Your task to perform on an android device: allow notifications from all sites in the chrome app Image 0: 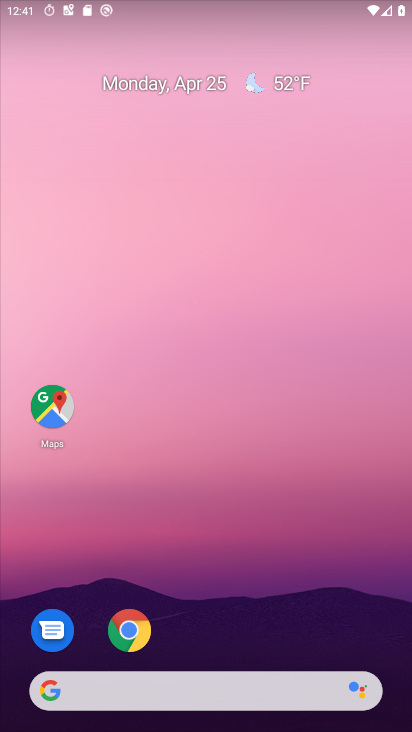
Step 0: drag from (172, 609) to (219, 172)
Your task to perform on an android device: allow notifications from all sites in the chrome app Image 1: 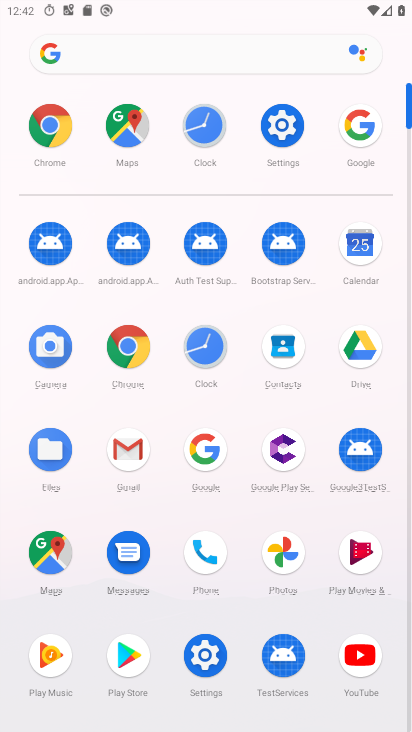
Step 1: click (125, 343)
Your task to perform on an android device: allow notifications from all sites in the chrome app Image 2: 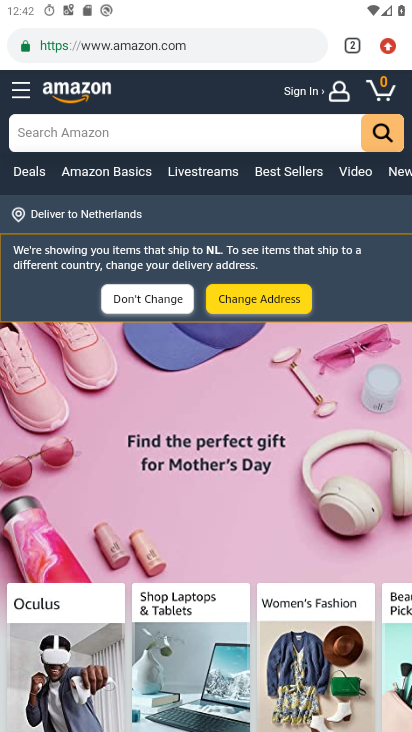
Step 2: drag from (193, 589) to (249, 264)
Your task to perform on an android device: allow notifications from all sites in the chrome app Image 3: 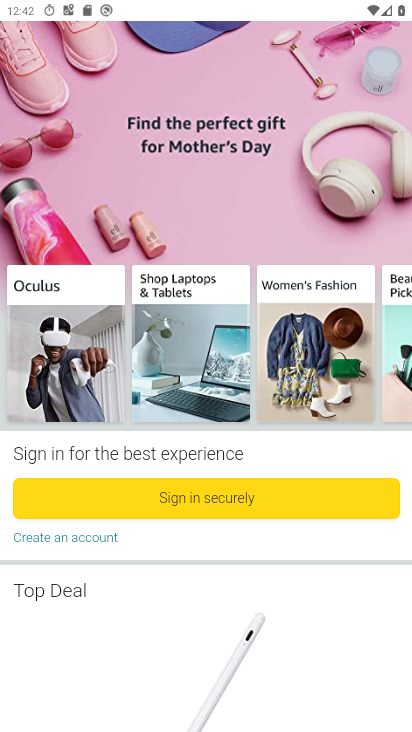
Step 3: drag from (240, 255) to (232, 598)
Your task to perform on an android device: allow notifications from all sites in the chrome app Image 4: 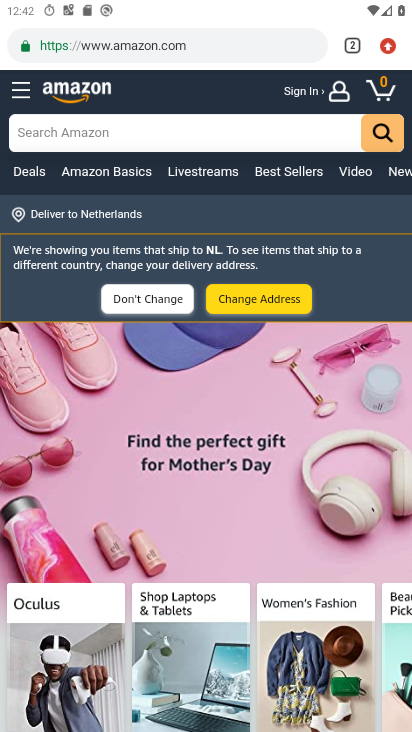
Step 4: drag from (208, 551) to (267, 26)
Your task to perform on an android device: allow notifications from all sites in the chrome app Image 5: 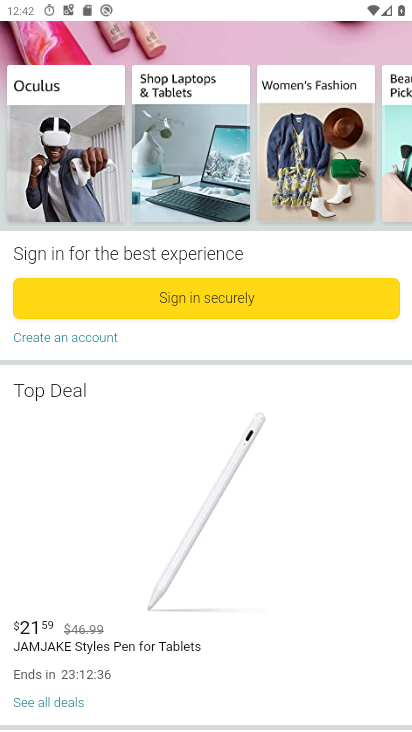
Step 5: drag from (181, 522) to (254, 8)
Your task to perform on an android device: allow notifications from all sites in the chrome app Image 6: 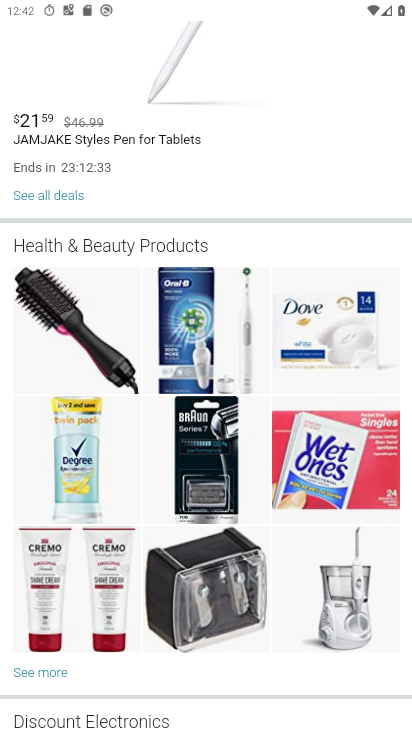
Step 6: drag from (216, 105) to (321, 595)
Your task to perform on an android device: allow notifications from all sites in the chrome app Image 7: 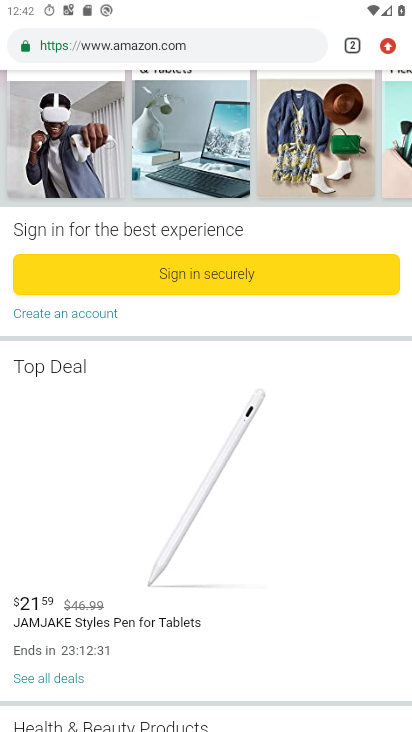
Step 7: drag from (389, 48) to (276, 594)
Your task to perform on an android device: allow notifications from all sites in the chrome app Image 8: 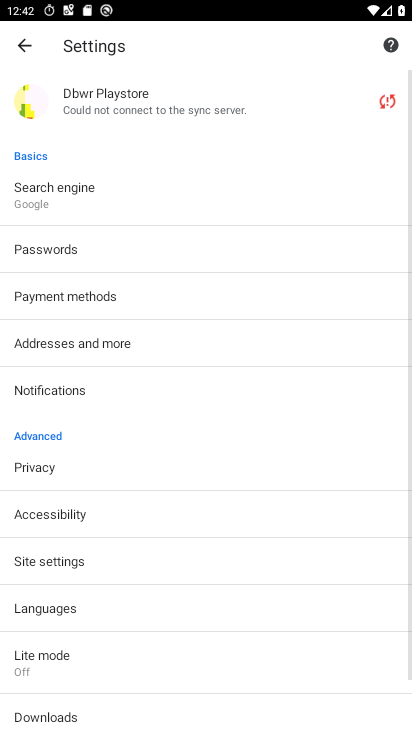
Step 8: drag from (228, 523) to (294, 94)
Your task to perform on an android device: allow notifications from all sites in the chrome app Image 9: 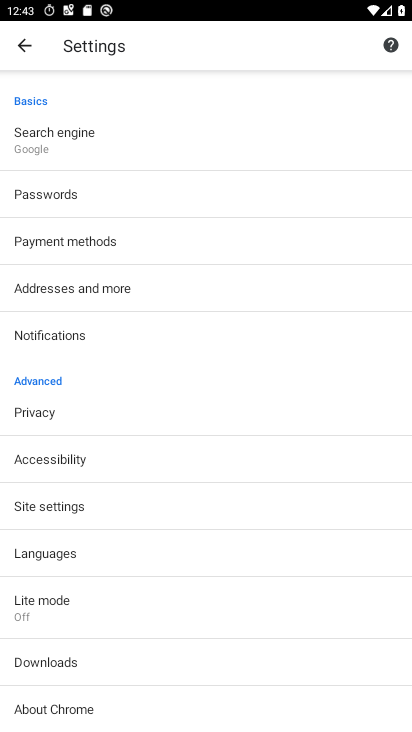
Step 9: click (83, 509)
Your task to perform on an android device: allow notifications from all sites in the chrome app Image 10: 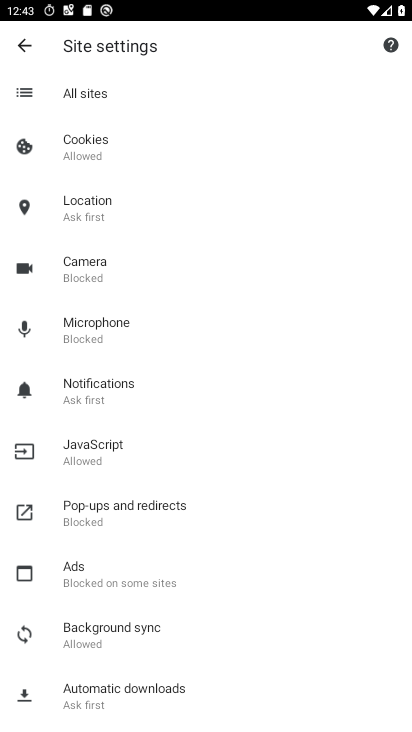
Step 10: click (132, 403)
Your task to perform on an android device: allow notifications from all sites in the chrome app Image 11: 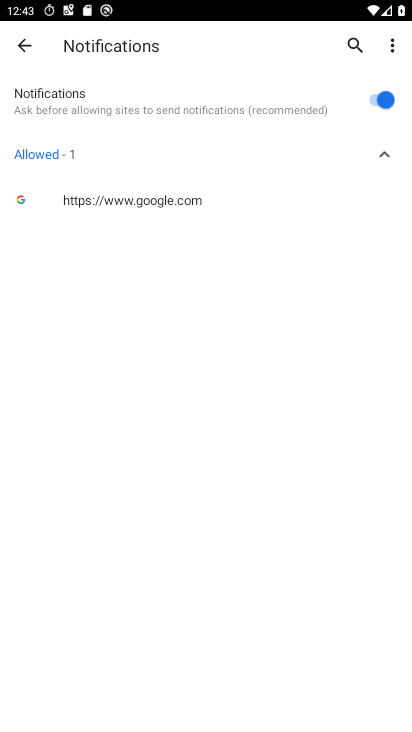
Step 11: task complete